Your task to perform on an android device: turn off improve location accuracy Image 0: 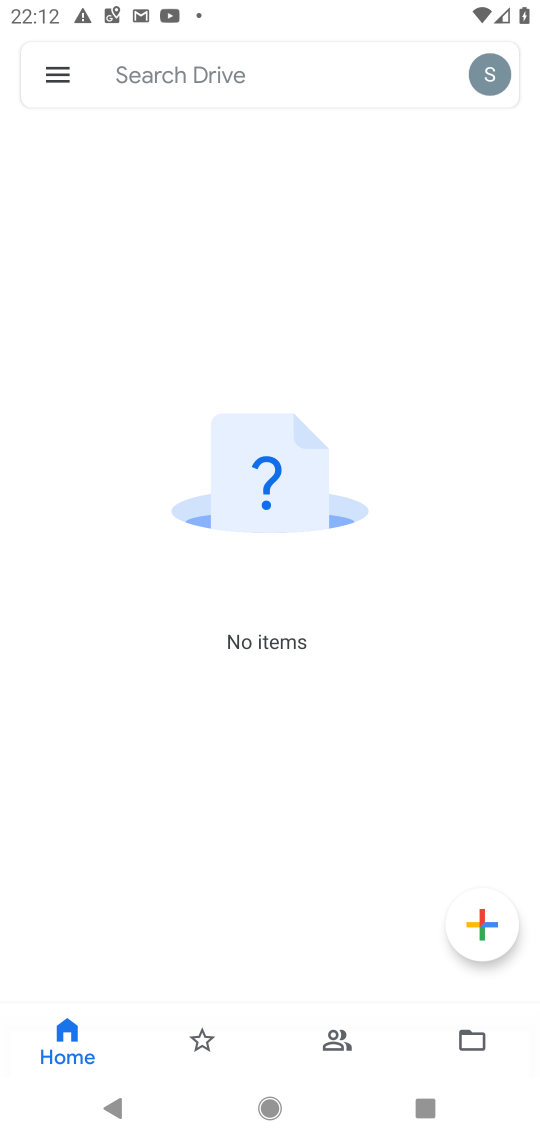
Step 0: press home button
Your task to perform on an android device: turn off improve location accuracy Image 1: 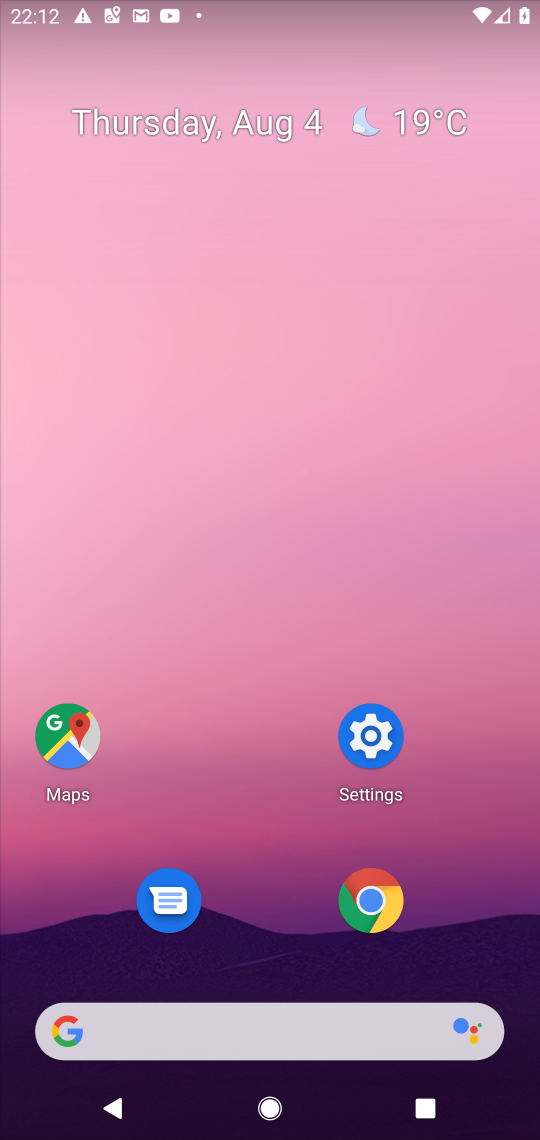
Step 1: click (370, 729)
Your task to perform on an android device: turn off improve location accuracy Image 2: 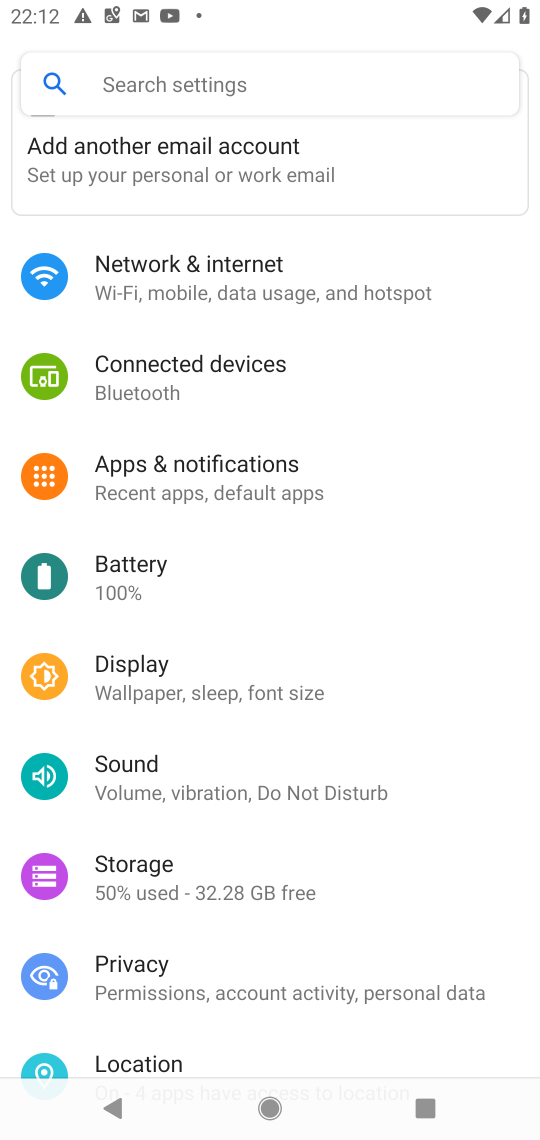
Step 2: drag from (240, 979) to (381, 319)
Your task to perform on an android device: turn off improve location accuracy Image 3: 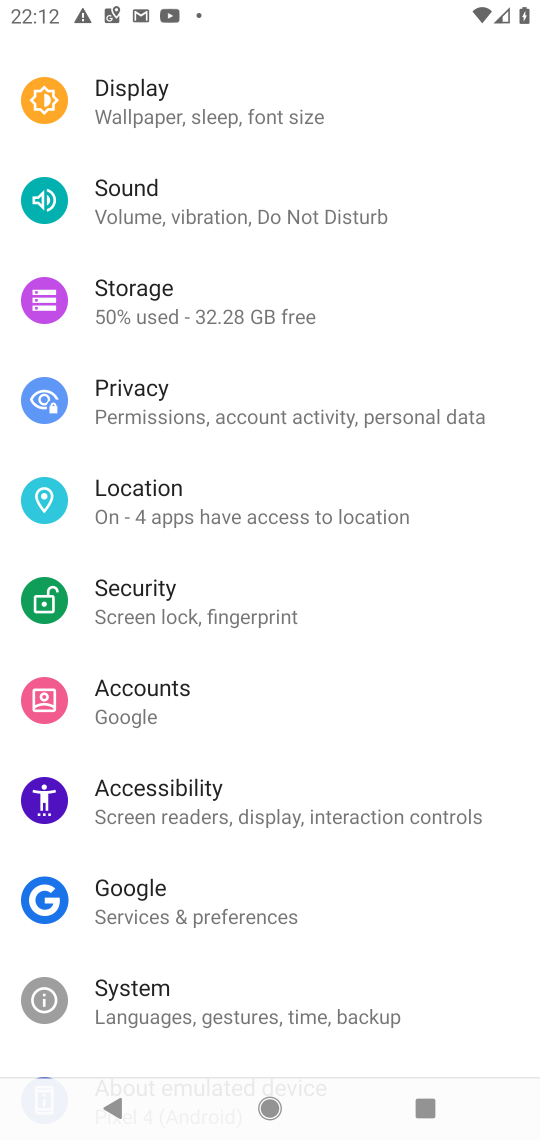
Step 3: click (170, 516)
Your task to perform on an android device: turn off improve location accuracy Image 4: 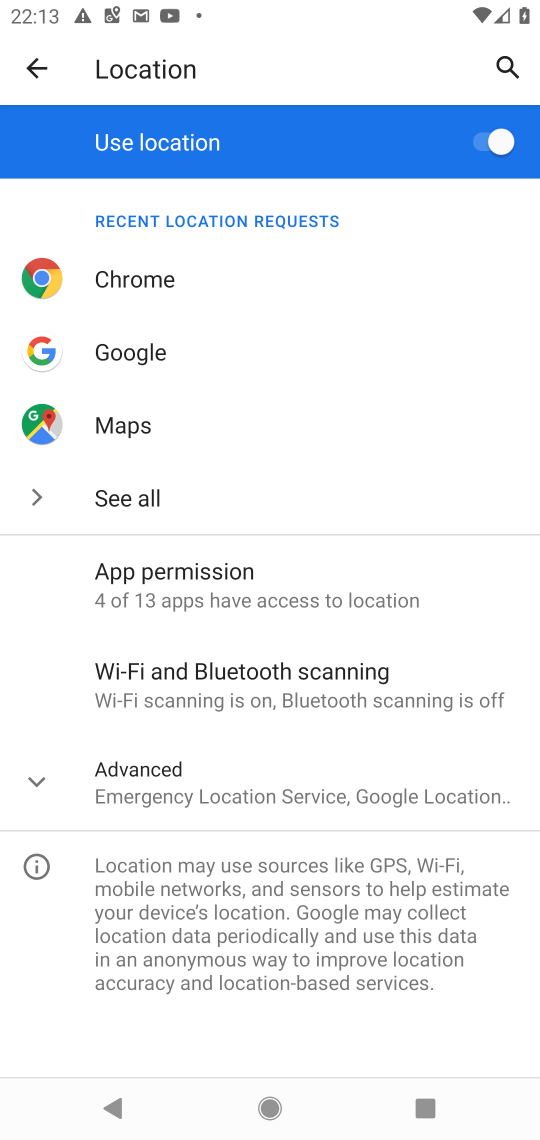
Step 4: click (174, 798)
Your task to perform on an android device: turn off improve location accuracy Image 5: 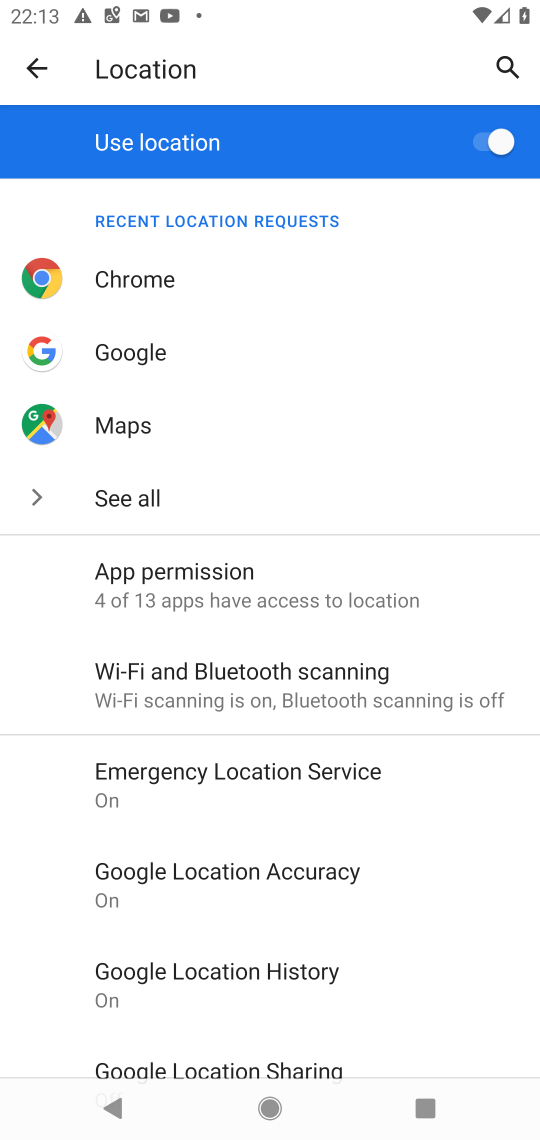
Step 5: click (207, 874)
Your task to perform on an android device: turn off improve location accuracy Image 6: 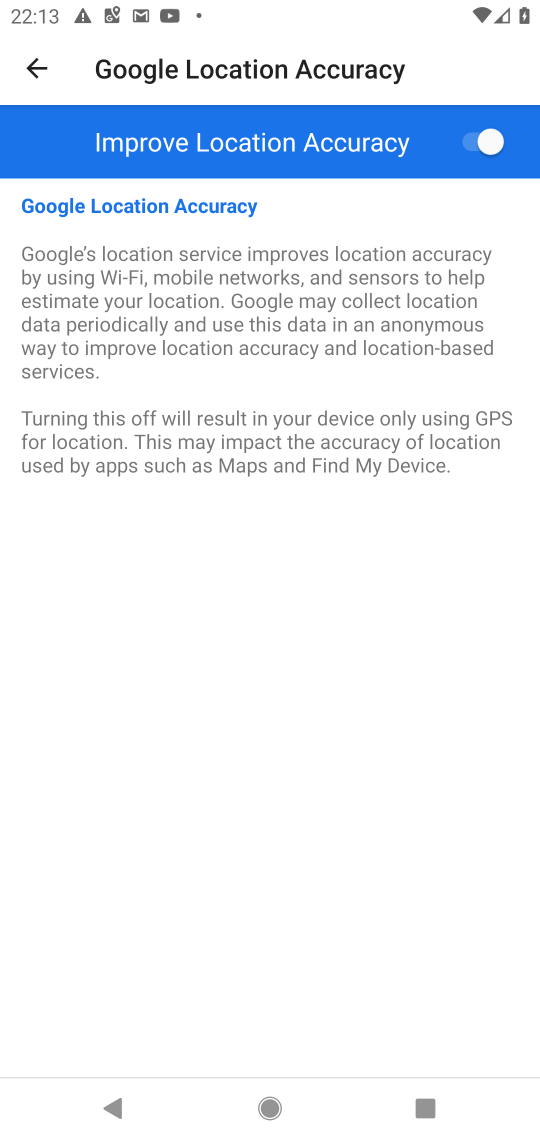
Step 6: click (477, 144)
Your task to perform on an android device: turn off improve location accuracy Image 7: 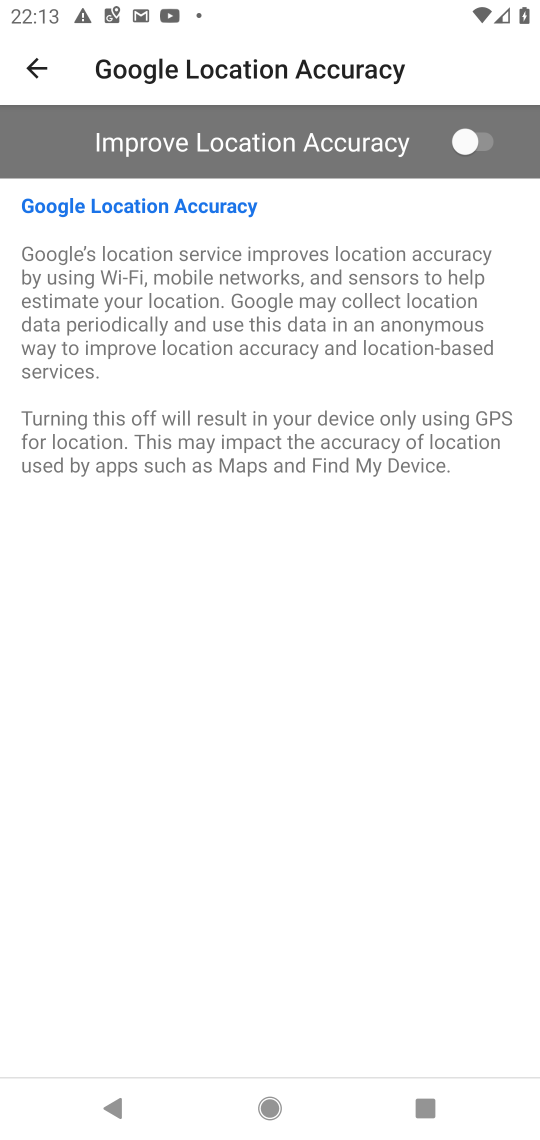
Step 7: task complete